Your task to perform on an android device: Open Youtube and go to "Your channel" Image 0: 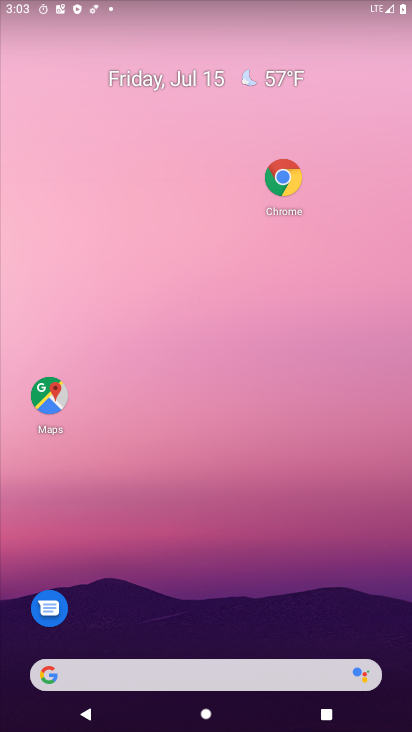
Step 0: press home button
Your task to perform on an android device: Open Youtube and go to "Your channel" Image 1: 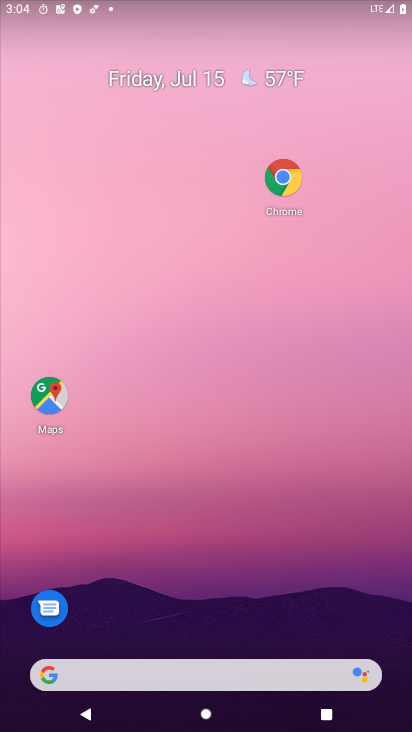
Step 1: drag from (328, 612) to (267, 32)
Your task to perform on an android device: Open Youtube and go to "Your channel" Image 2: 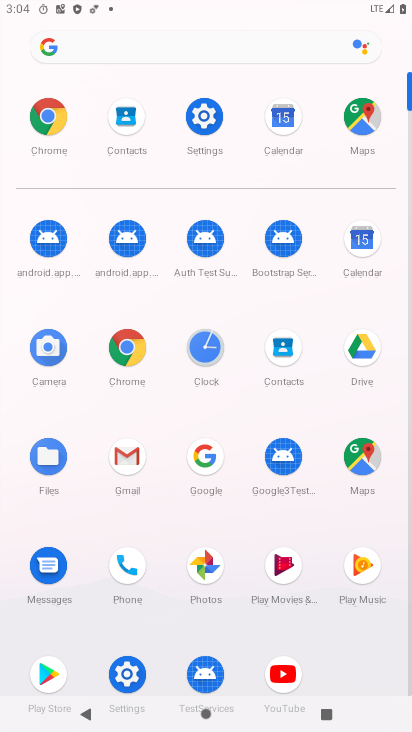
Step 2: click (291, 682)
Your task to perform on an android device: Open Youtube and go to "Your channel" Image 3: 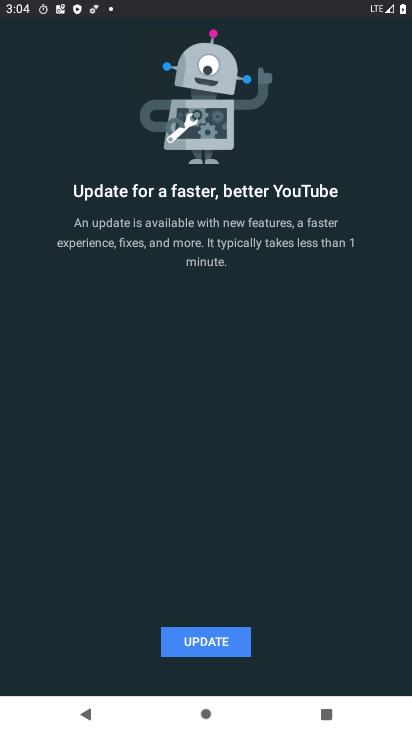
Step 3: click (187, 651)
Your task to perform on an android device: Open Youtube and go to "Your channel" Image 4: 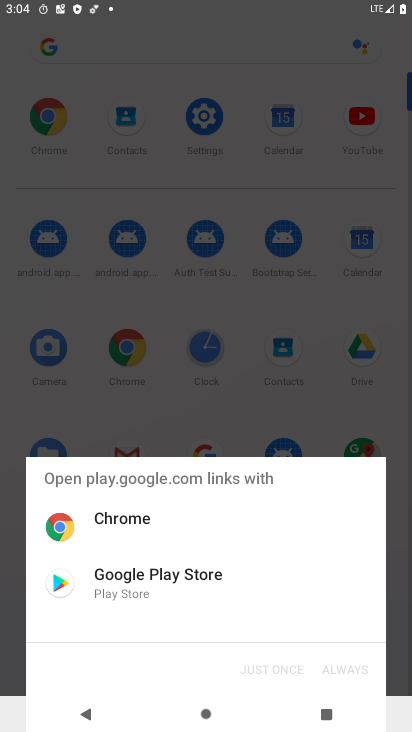
Step 4: click (197, 588)
Your task to perform on an android device: Open Youtube and go to "Your channel" Image 5: 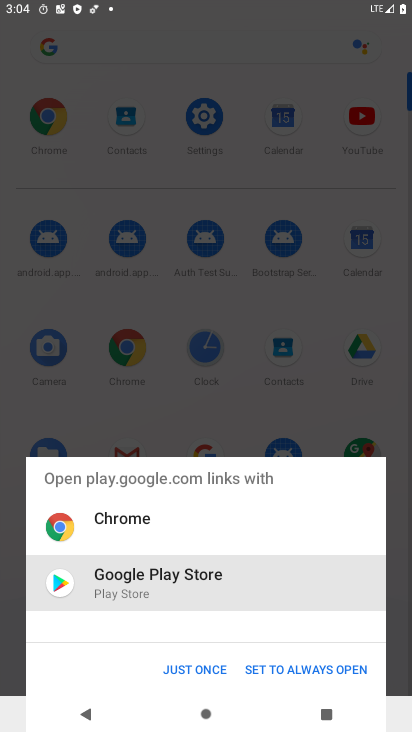
Step 5: click (205, 686)
Your task to perform on an android device: Open Youtube and go to "Your channel" Image 6: 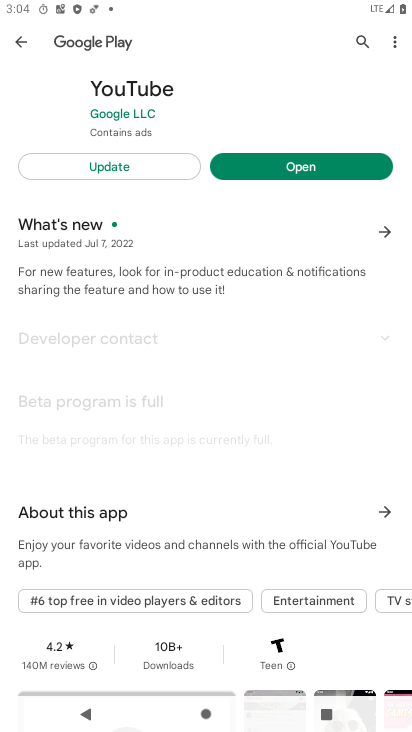
Step 6: click (78, 168)
Your task to perform on an android device: Open Youtube and go to "Your channel" Image 7: 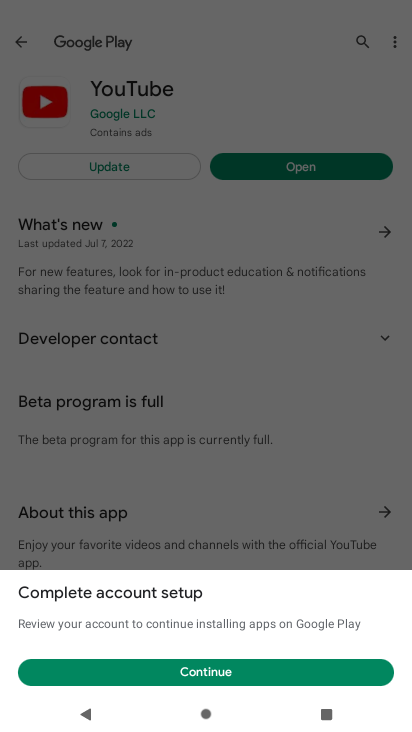
Step 7: click (263, 660)
Your task to perform on an android device: Open Youtube and go to "Your channel" Image 8: 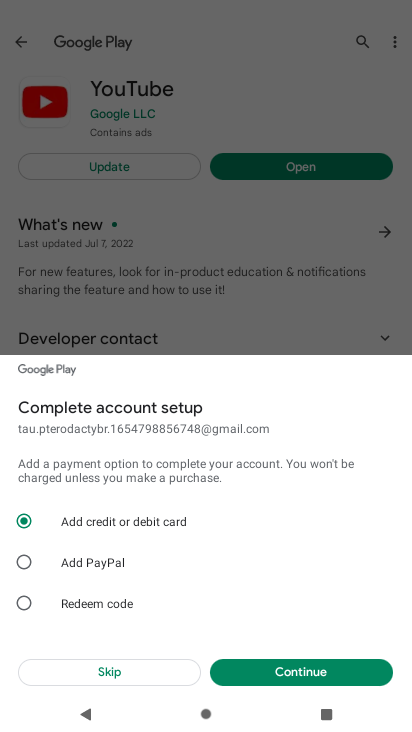
Step 8: task complete